Your task to perform on an android device: Open eBay Image 0: 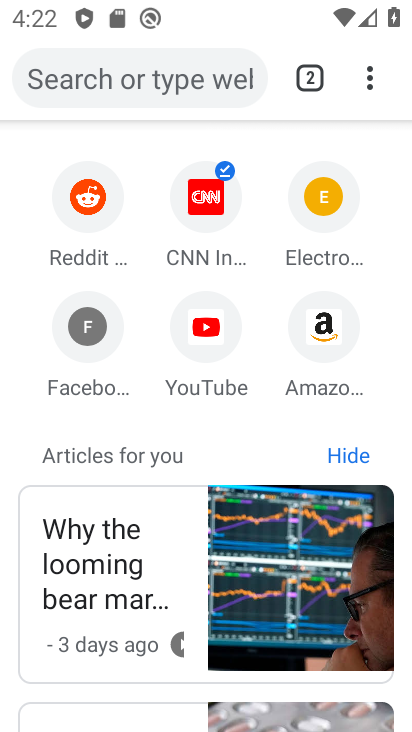
Step 0: click (76, 71)
Your task to perform on an android device: Open eBay Image 1: 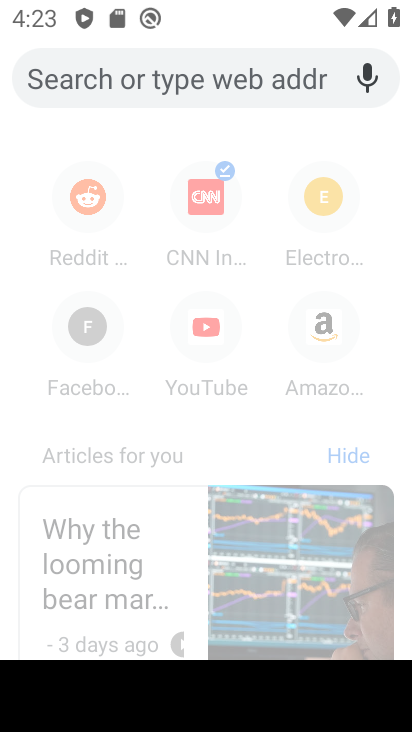
Step 1: type "ebay.com"
Your task to perform on an android device: Open eBay Image 2: 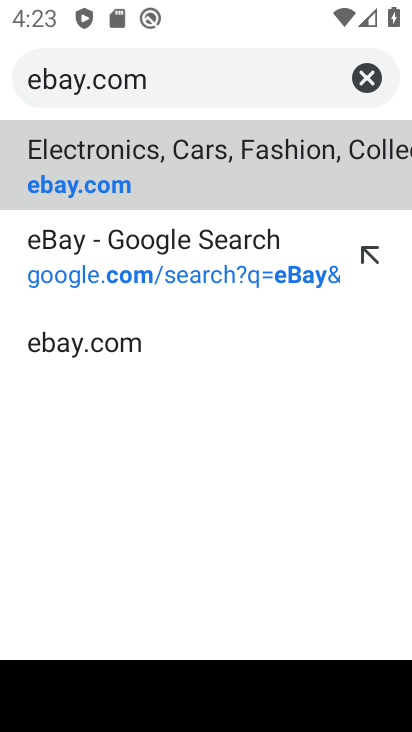
Step 2: click (77, 264)
Your task to perform on an android device: Open eBay Image 3: 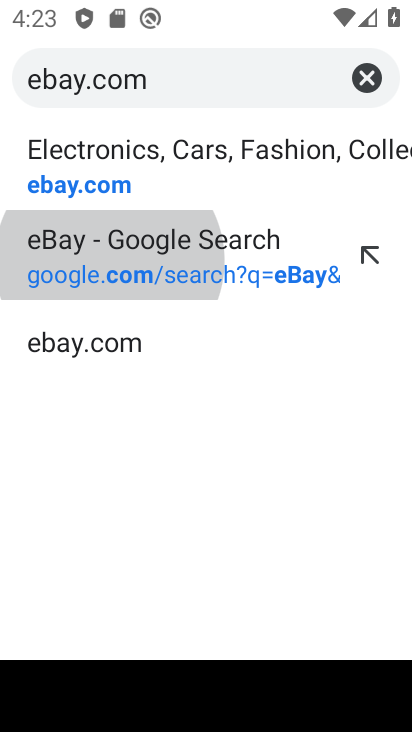
Step 3: click (77, 264)
Your task to perform on an android device: Open eBay Image 4: 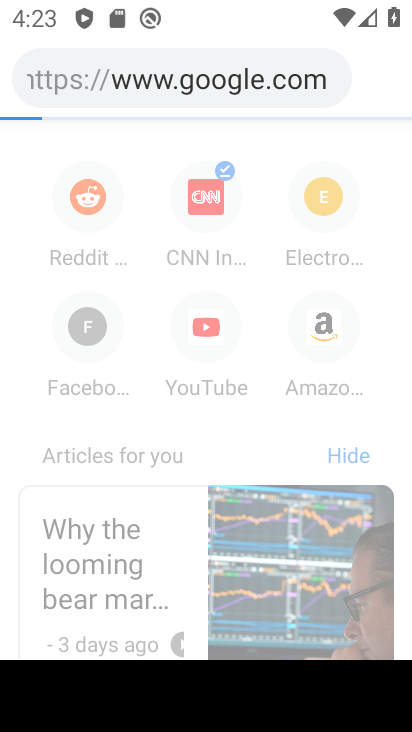
Step 4: click (76, 263)
Your task to perform on an android device: Open eBay Image 5: 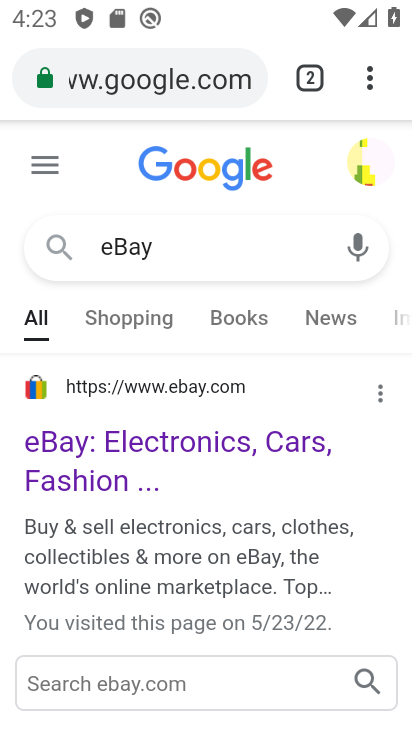
Step 5: click (168, 446)
Your task to perform on an android device: Open eBay Image 6: 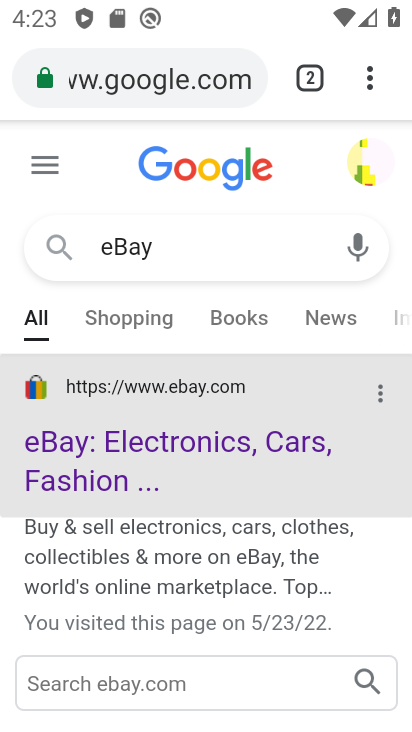
Step 6: click (167, 446)
Your task to perform on an android device: Open eBay Image 7: 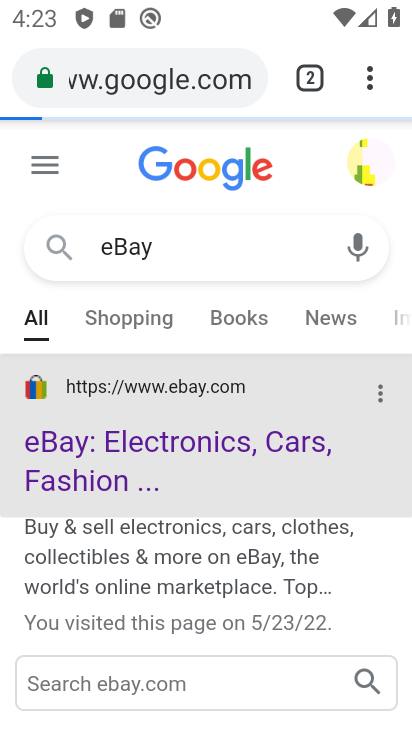
Step 7: click (167, 449)
Your task to perform on an android device: Open eBay Image 8: 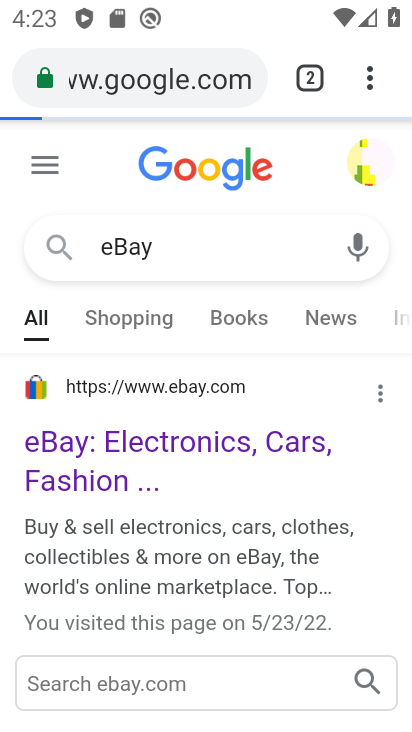
Step 8: click (167, 450)
Your task to perform on an android device: Open eBay Image 9: 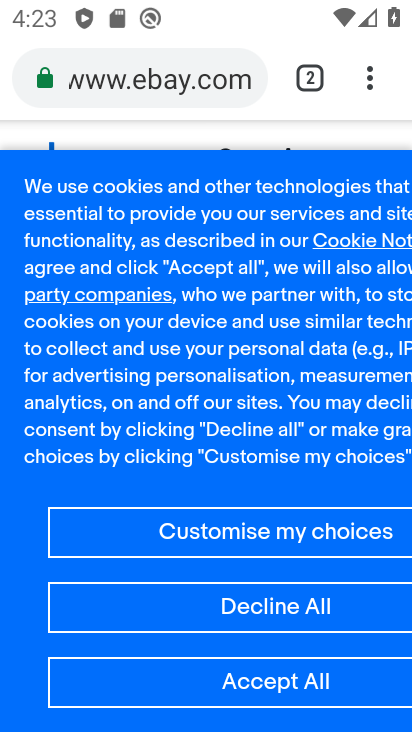
Step 9: task complete